Your task to perform on an android device: Go to privacy settings Image 0: 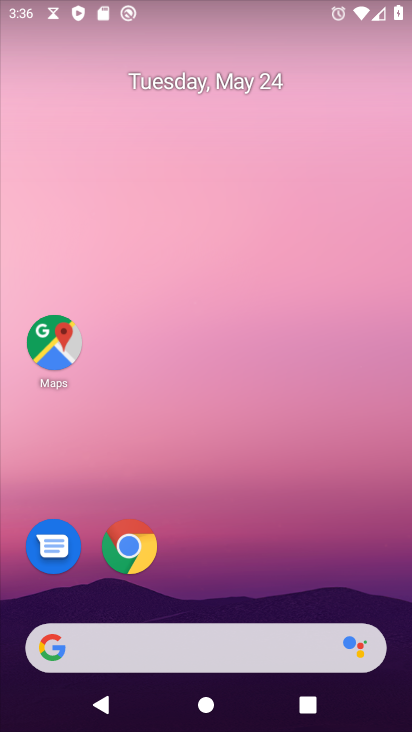
Step 0: drag from (269, 695) to (274, 229)
Your task to perform on an android device: Go to privacy settings Image 1: 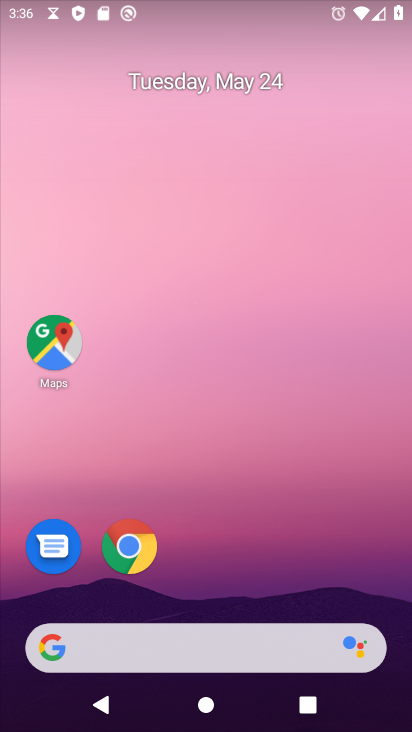
Step 1: drag from (242, 698) to (279, 371)
Your task to perform on an android device: Go to privacy settings Image 2: 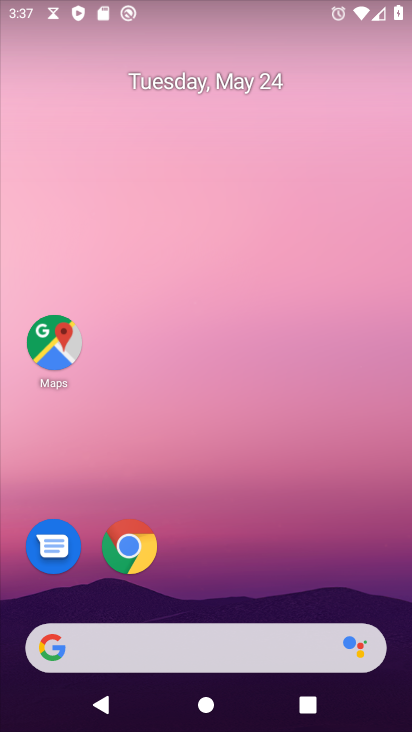
Step 2: drag from (278, 720) to (210, 189)
Your task to perform on an android device: Go to privacy settings Image 3: 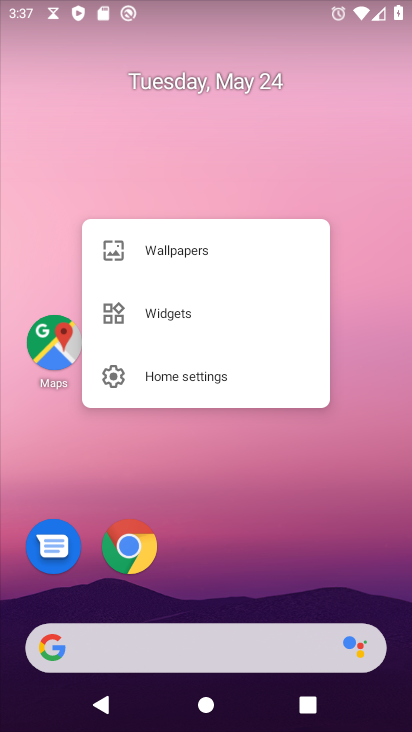
Step 3: drag from (233, 626) to (209, 178)
Your task to perform on an android device: Go to privacy settings Image 4: 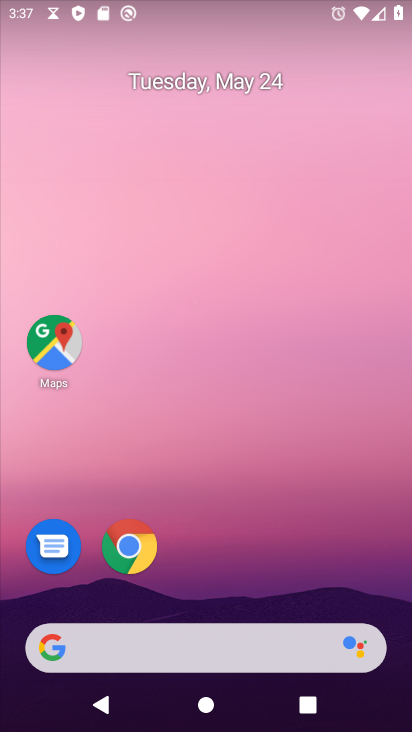
Step 4: drag from (249, 674) to (218, 320)
Your task to perform on an android device: Go to privacy settings Image 5: 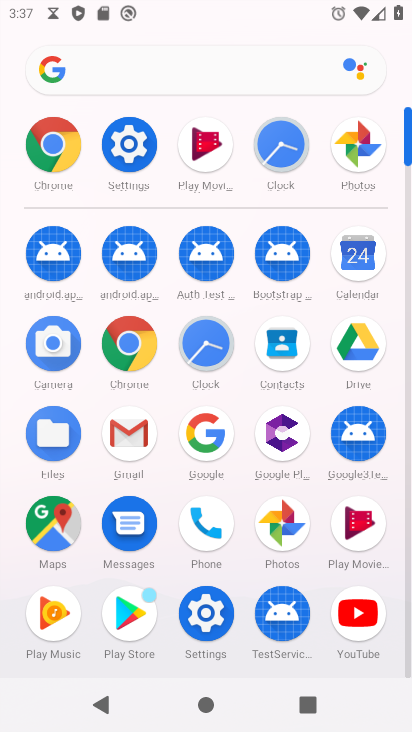
Step 5: drag from (254, 666) to (267, 334)
Your task to perform on an android device: Go to privacy settings Image 6: 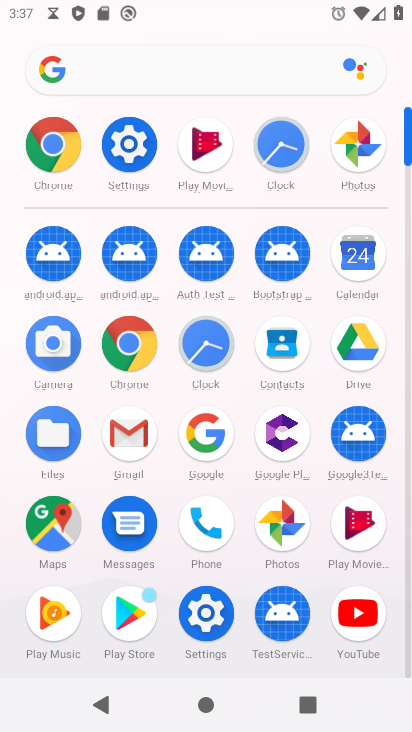
Step 6: click (126, 147)
Your task to perform on an android device: Go to privacy settings Image 7: 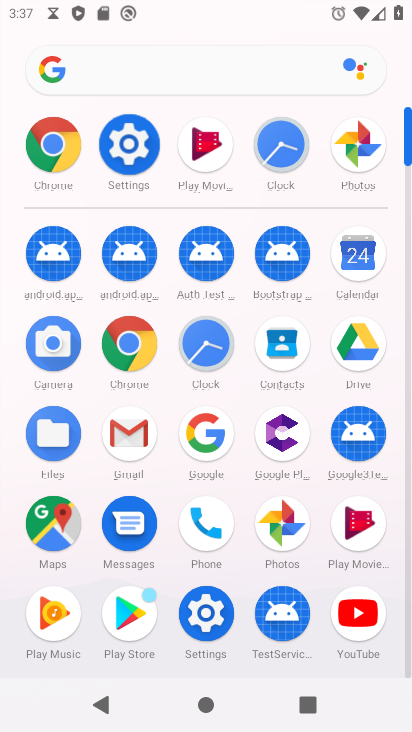
Step 7: click (126, 147)
Your task to perform on an android device: Go to privacy settings Image 8: 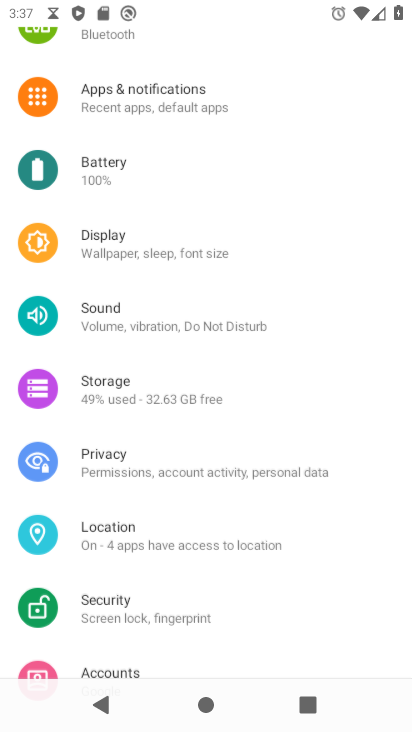
Step 8: click (123, 143)
Your task to perform on an android device: Go to privacy settings Image 9: 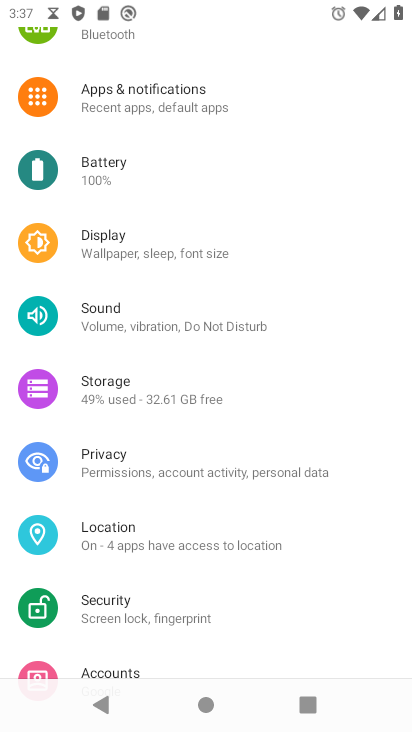
Step 9: click (110, 456)
Your task to perform on an android device: Go to privacy settings Image 10: 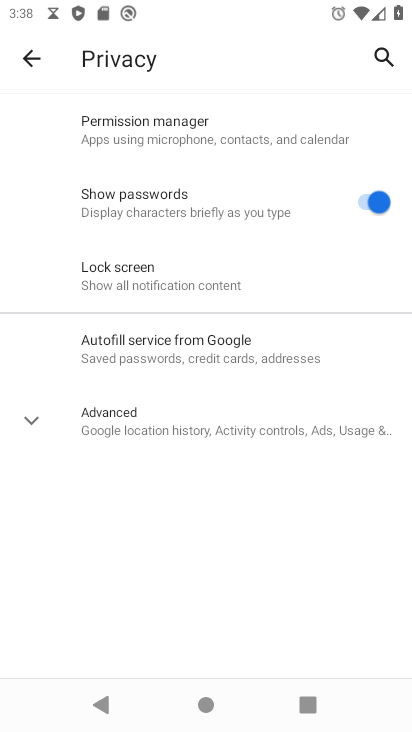
Step 10: task complete